Your task to perform on an android device: turn off data saver in the chrome app Image 0: 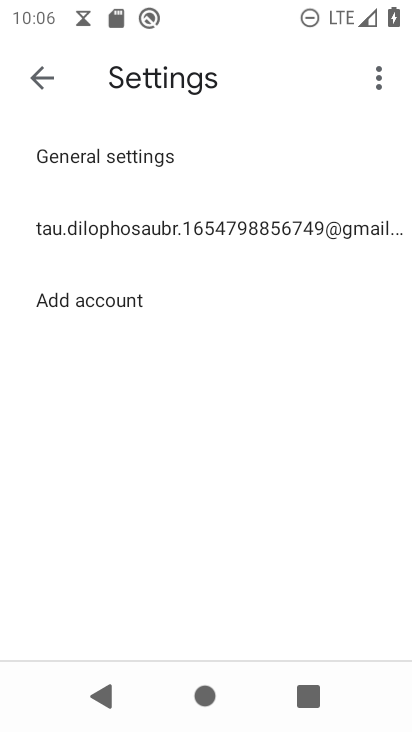
Step 0: press back button
Your task to perform on an android device: turn off data saver in the chrome app Image 1: 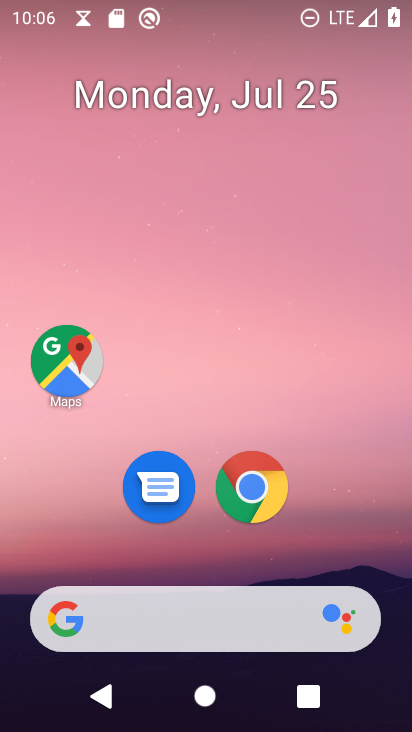
Step 1: click (238, 494)
Your task to perform on an android device: turn off data saver in the chrome app Image 2: 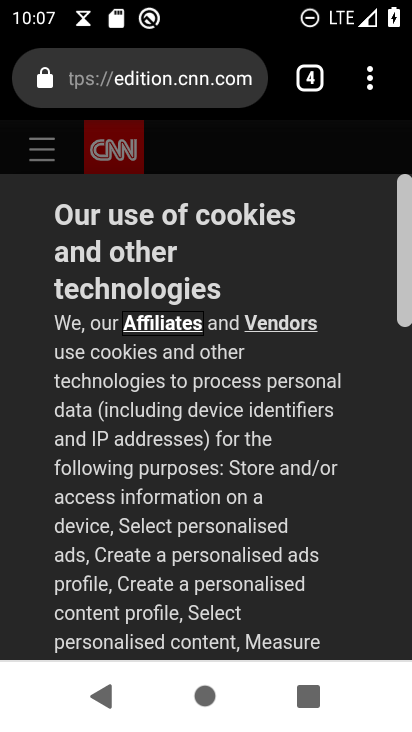
Step 2: drag from (372, 74) to (92, 544)
Your task to perform on an android device: turn off data saver in the chrome app Image 3: 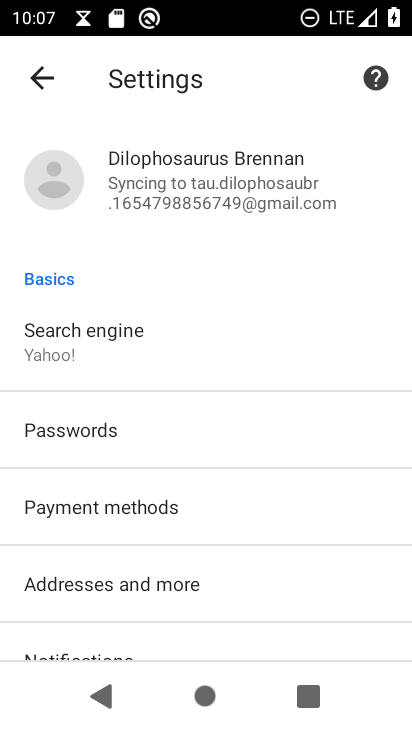
Step 3: drag from (91, 589) to (224, 137)
Your task to perform on an android device: turn off data saver in the chrome app Image 4: 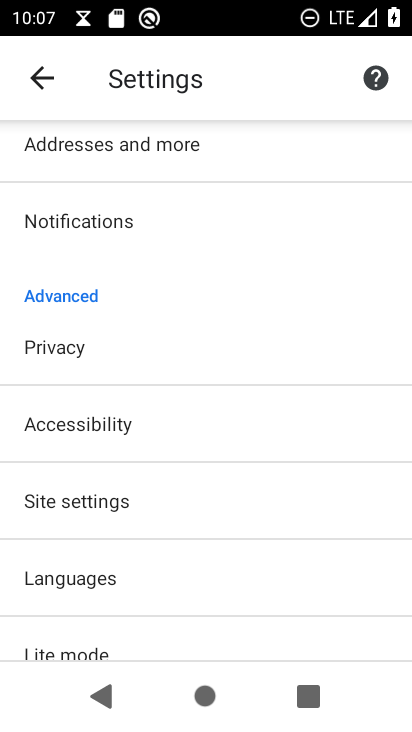
Step 4: drag from (171, 613) to (217, 281)
Your task to perform on an android device: turn off data saver in the chrome app Image 5: 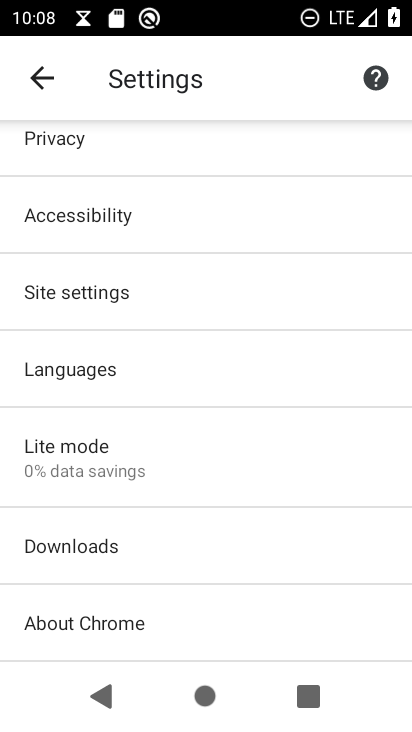
Step 5: click (82, 446)
Your task to perform on an android device: turn off data saver in the chrome app Image 6: 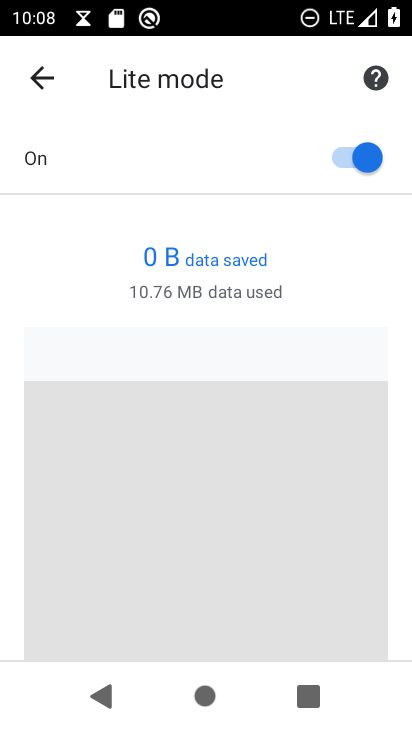
Step 6: click (359, 157)
Your task to perform on an android device: turn off data saver in the chrome app Image 7: 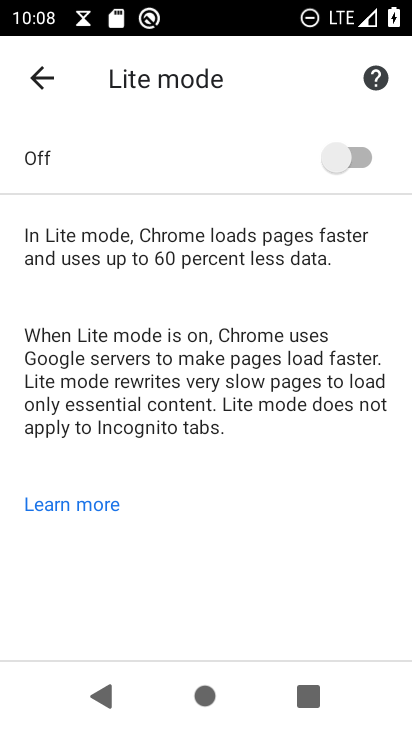
Step 7: task complete